Your task to perform on an android device: see creations saved in the google photos Image 0: 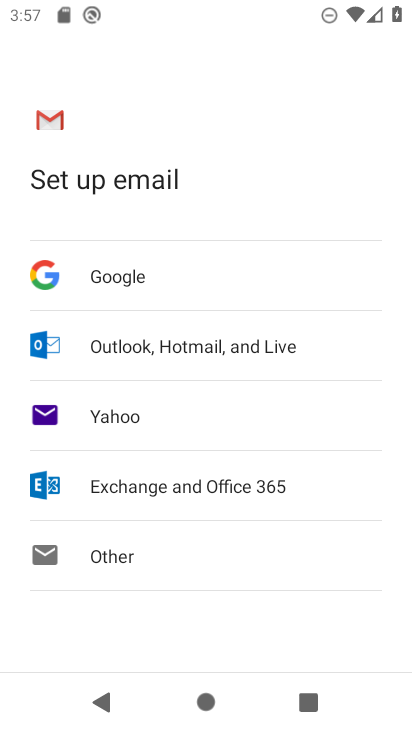
Step 0: press home button
Your task to perform on an android device: see creations saved in the google photos Image 1: 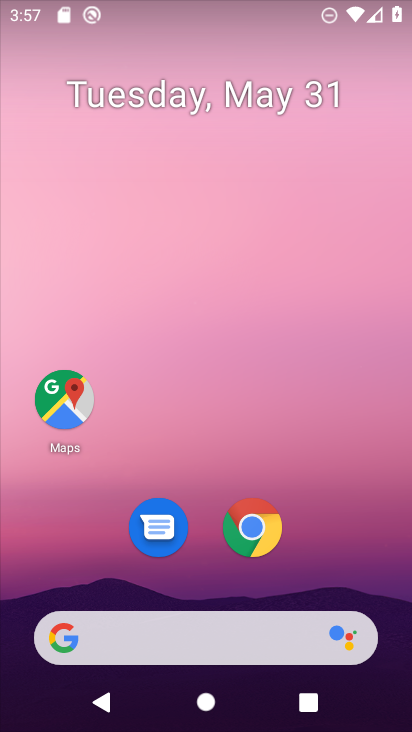
Step 1: drag from (195, 623) to (185, 42)
Your task to perform on an android device: see creations saved in the google photos Image 2: 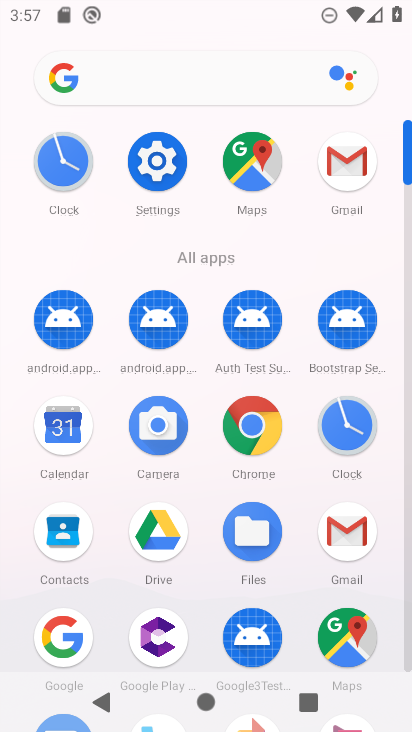
Step 2: drag from (201, 575) to (225, 142)
Your task to perform on an android device: see creations saved in the google photos Image 3: 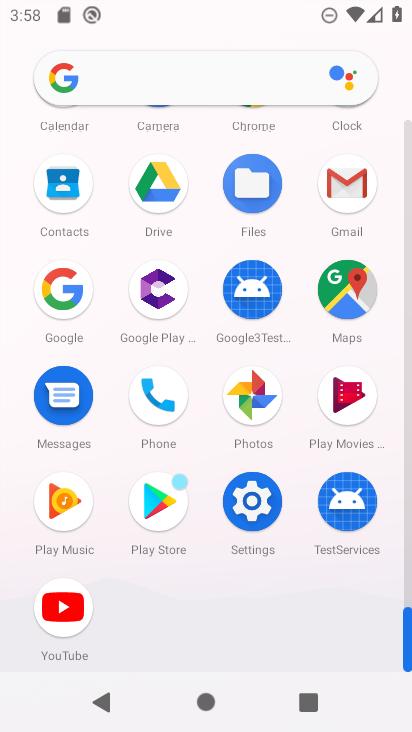
Step 3: click (246, 392)
Your task to perform on an android device: see creations saved in the google photos Image 4: 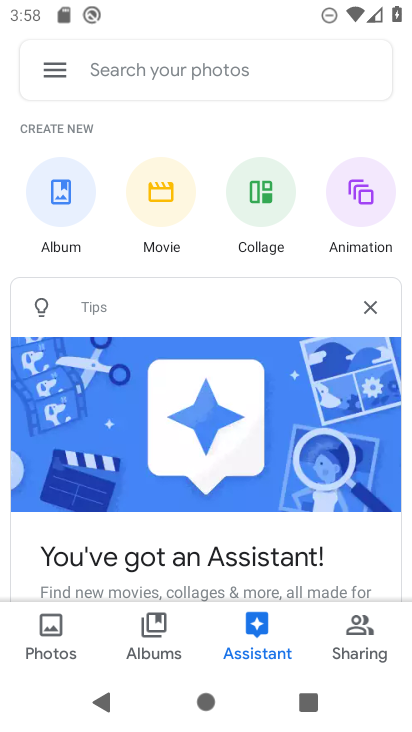
Step 4: click (206, 73)
Your task to perform on an android device: see creations saved in the google photos Image 5: 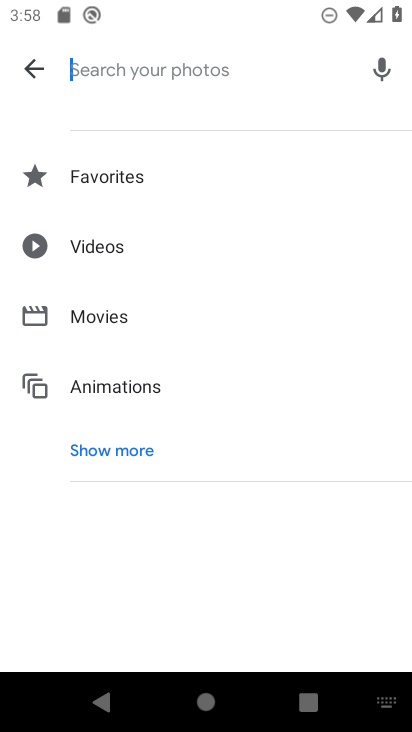
Step 5: click (115, 450)
Your task to perform on an android device: see creations saved in the google photos Image 6: 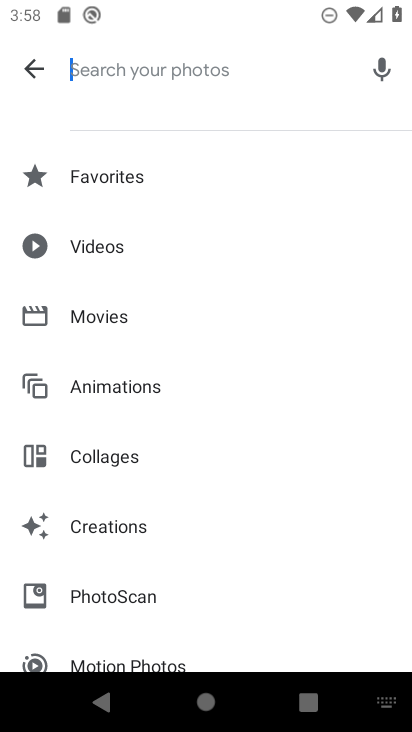
Step 6: click (124, 533)
Your task to perform on an android device: see creations saved in the google photos Image 7: 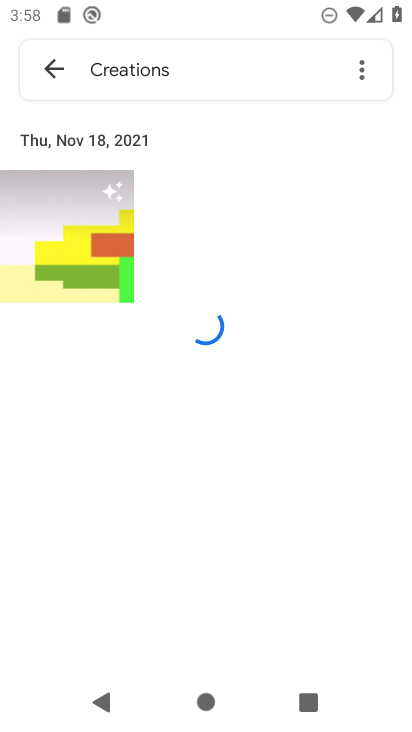
Step 7: task complete